Your task to perform on an android device: see tabs open on other devices in the chrome app Image 0: 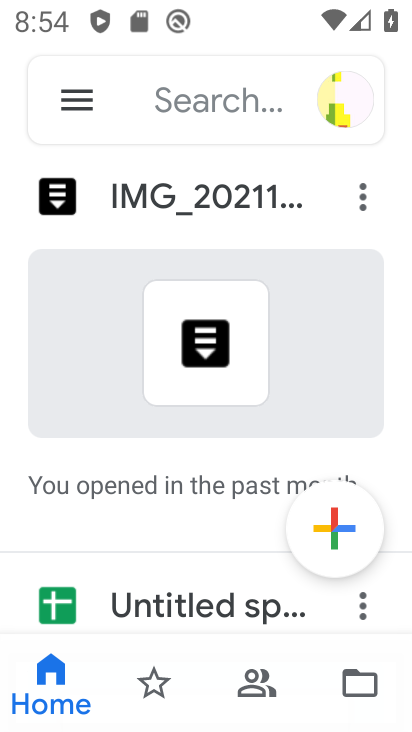
Step 0: press home button
Your task to perform on an android device: see tabs open on other devices in the chrome app Image 1: 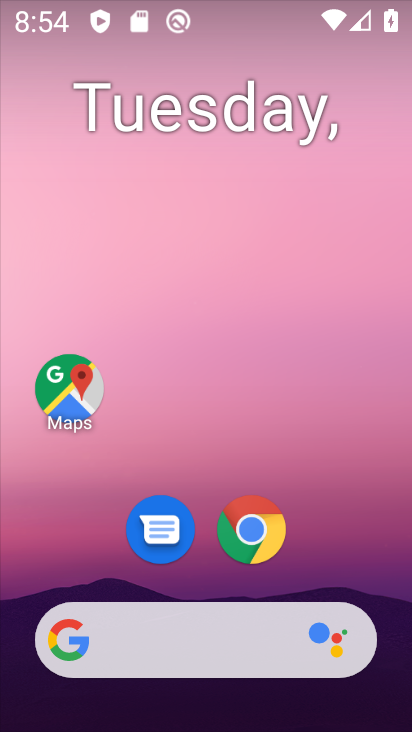
Step 1: click (248, 529)
Your task to perform on an android device: see tabs open on other devices in the chrome app Image 2: 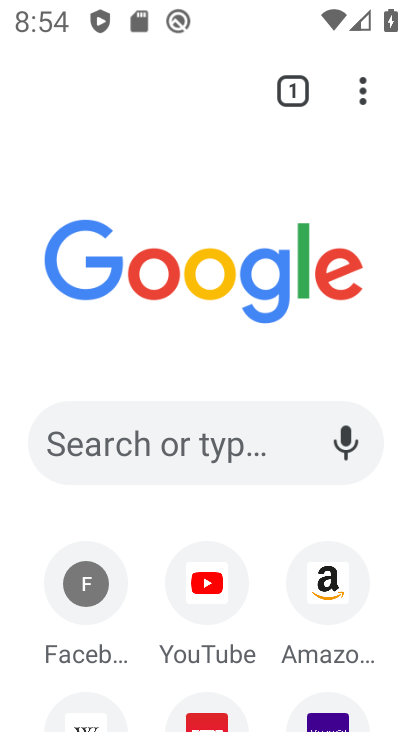
Step 2: click (363, 101)
Your task to perform on an android device: see tabs open on other devices in the chrome app Image 3: 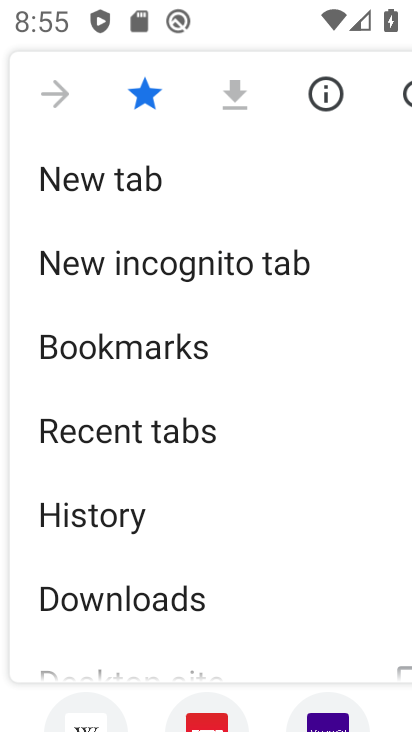
Step 3: click (136, 422)
Your task to perform on an android device: see tabs open on other devices in the chrome app Image 4: 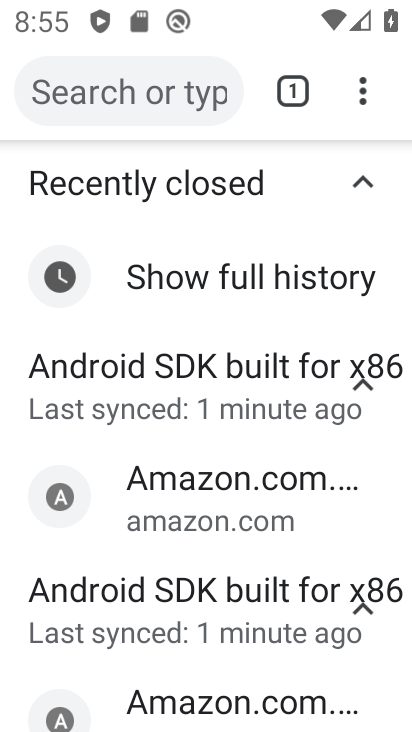
Step 4: task complete